Your task to perform on an android device: Open calendar and show me the third week of next month Image 0: 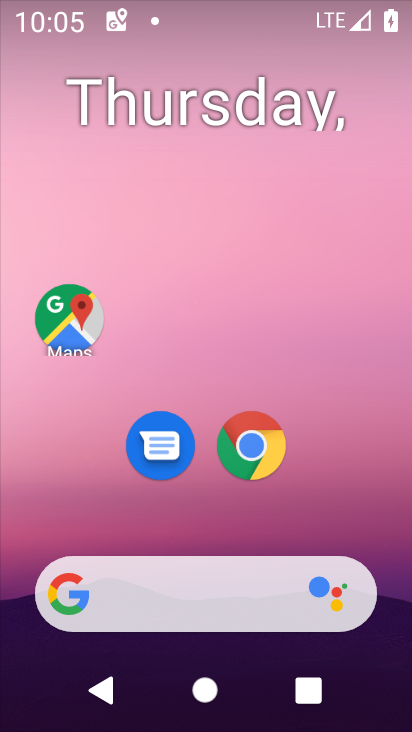
Step 0: drag from (271, 425) to (302, 256)
Your task to perform on an android device: Open calendar and show me the third week of next month Image 1: 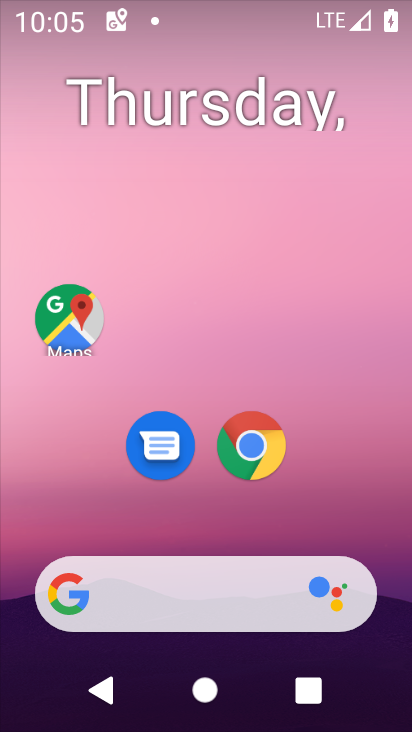
Step 1: drag from (183, 564) to (222, 253)
Your task to perform on an android device: Open calendar and show me the third week of next month Image 2: 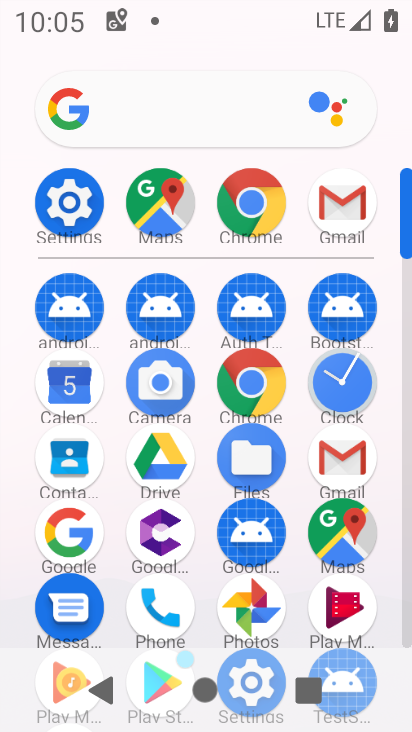
Step 2: click (59, 385)
Your task to perform on an android device: Open calendar and show me the third week of next month Image 3: 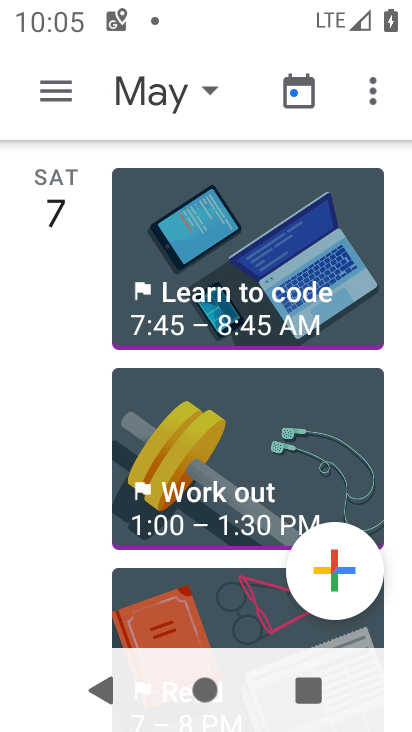
Step 3: click (63, 92)
Your task to perform on an android device: Open calendar and show me the third week of next month Image 4: 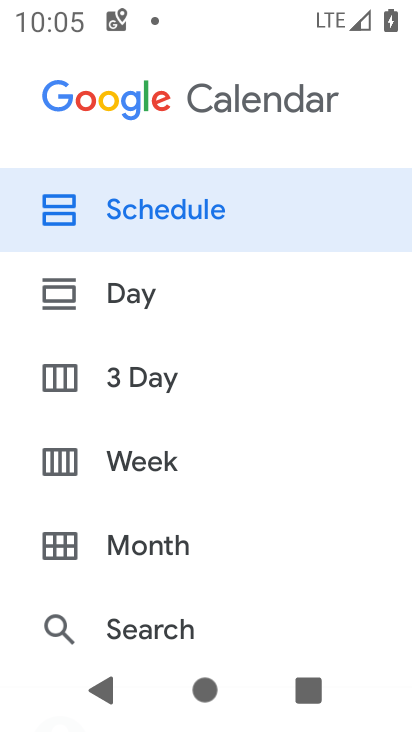
Step 4: click (288, 378)
Your task to perform on an android device: Open calendar and show me the third week of next month Image 5: 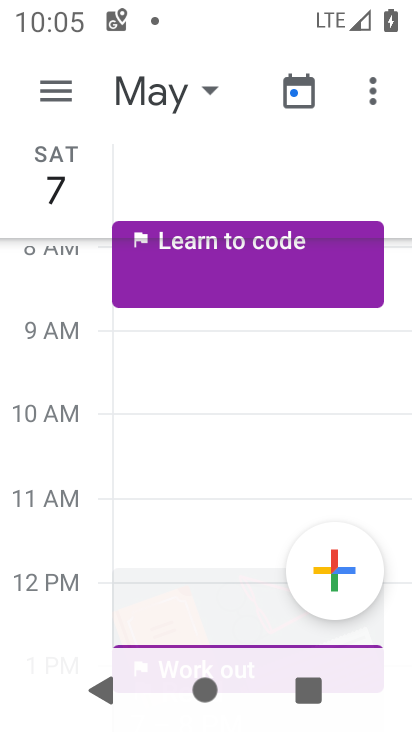
Step 5: drag from (254, 229) to (273, 540)
Your task to perform on an android device: Open calendar and show me the third week of next month Image 6: 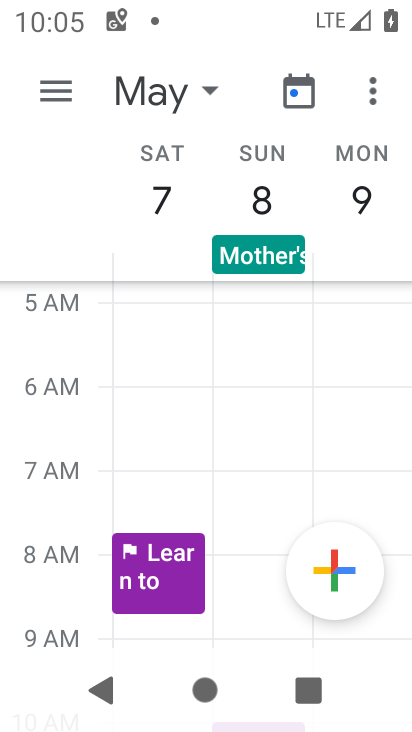
Step 6: click (198, 95)
Your task to perform on an android device: Open calendar and show me the third week of next month Image 7: 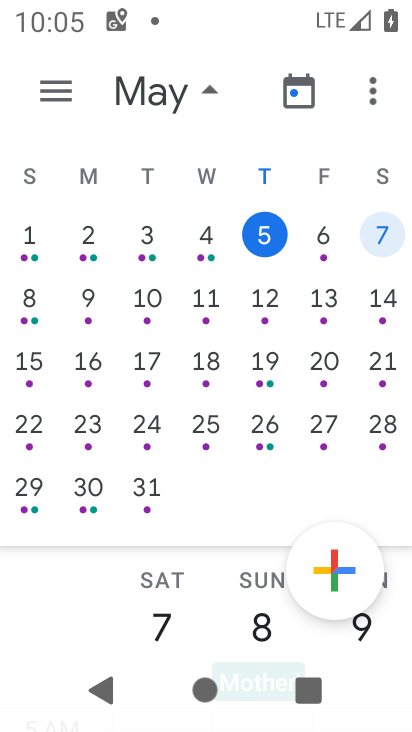
Step 7: drag from (202, 119) to (18, 256)
Your task to perform on an android device: Open calendar and show me the third week of next month Image 8: 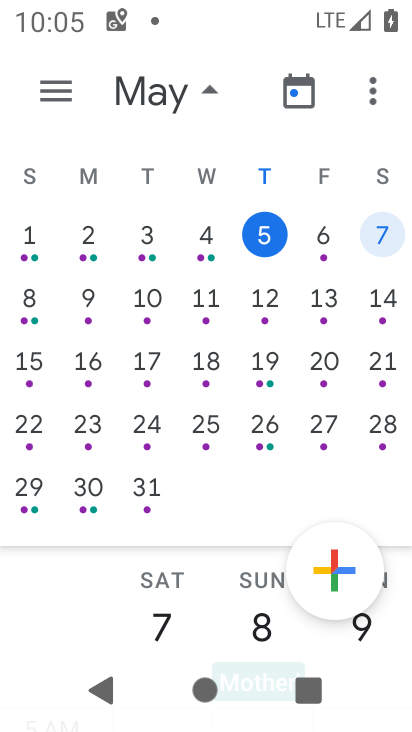
Step 8: drag from (399, 332) to (14, 423)
Your task to perform on an android device: Open calendar and show me the third week of next month Image 9: 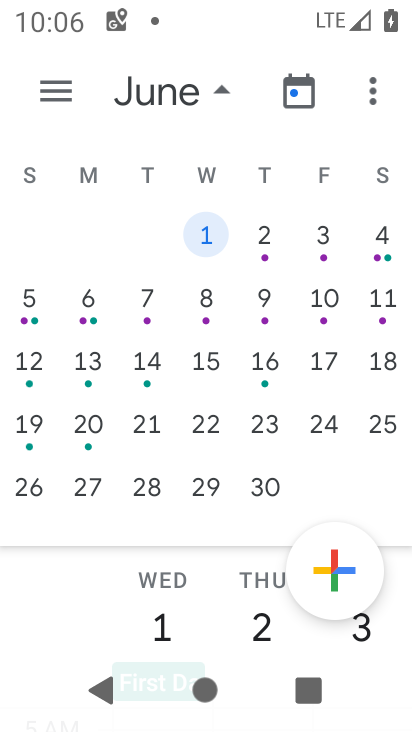
Step 9: click (31, 362)
Your task to perform on an android device: Open calendar and show me the third week of next month Image 10: 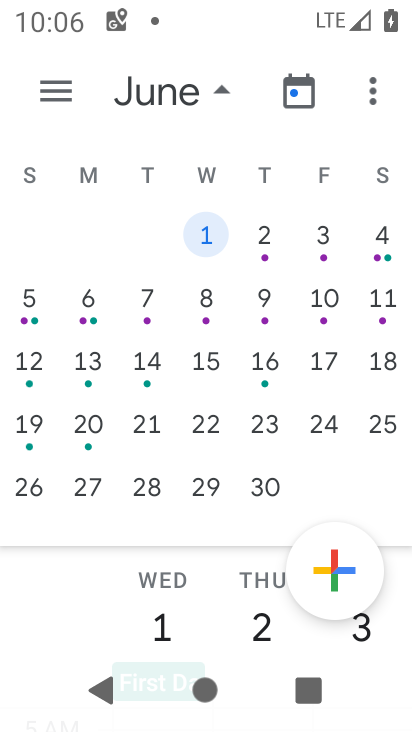
Step 10: click (159, 357)
Your task to perform on an android device: Open calendar and show me the third week of next month Image 11: 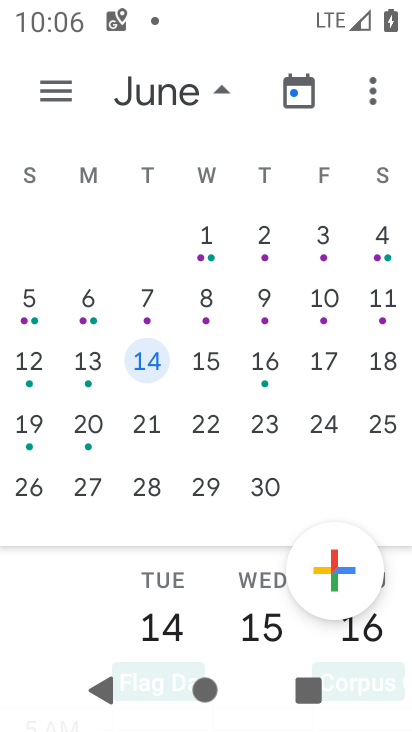
Step 11: task complete